Your task to perform on an android device: Open Android settings Image 0: 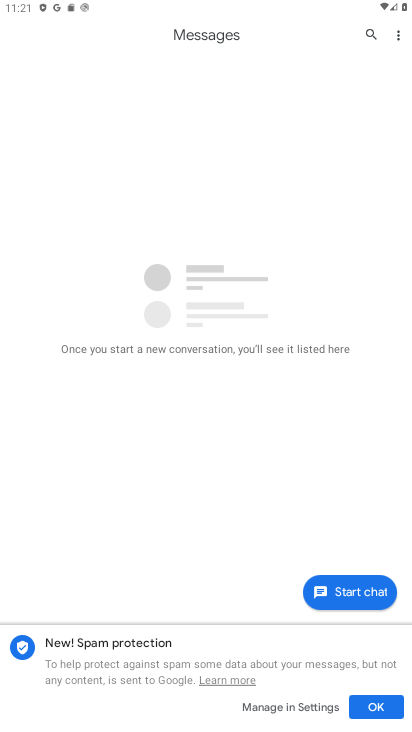
Step 0: press home button
Your task to perform on an android device: Open Android settings Image 1: 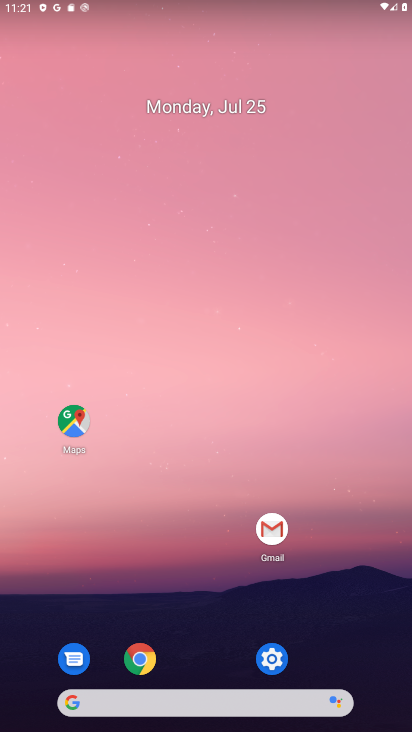
Step 1: click (291, 660)
Your task to perform on an android device: Open Android settings Image 2: 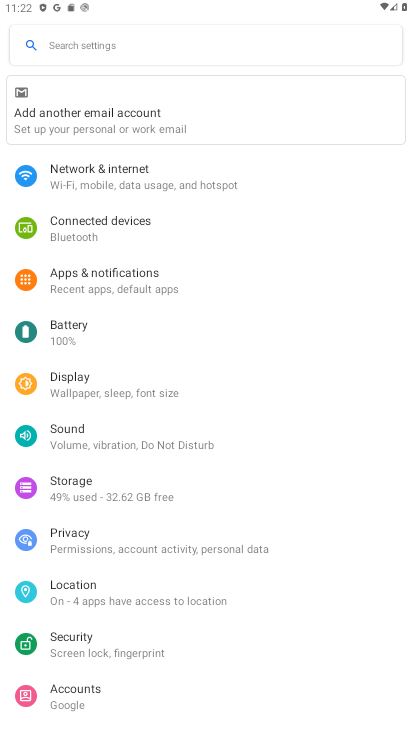
Step 2: click (118, 45)
Your task to perform on an android device: Open Android settings Image 3: 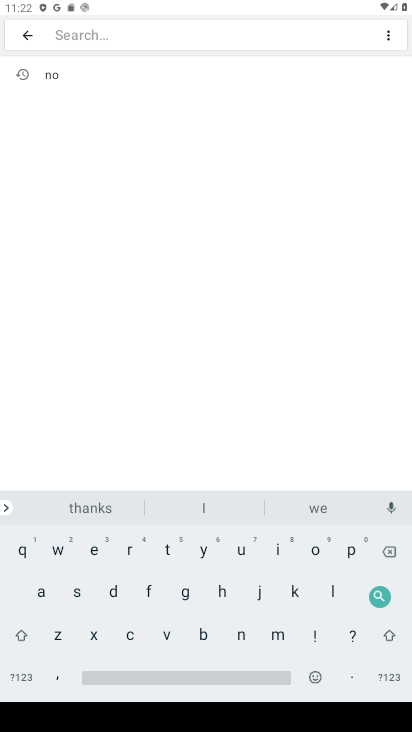
Step 3: click (35, 598)
Your task to perform on an android device: Open Android settings Image 4: 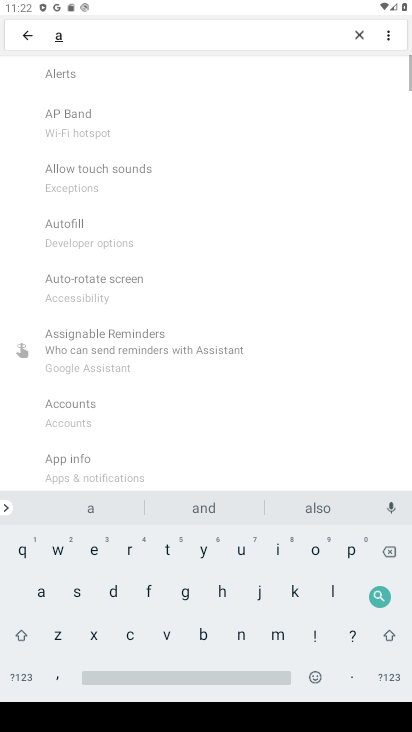
Step 4: click (238, 635)
Your task to perform on an android device: Open Android settings Image 5: 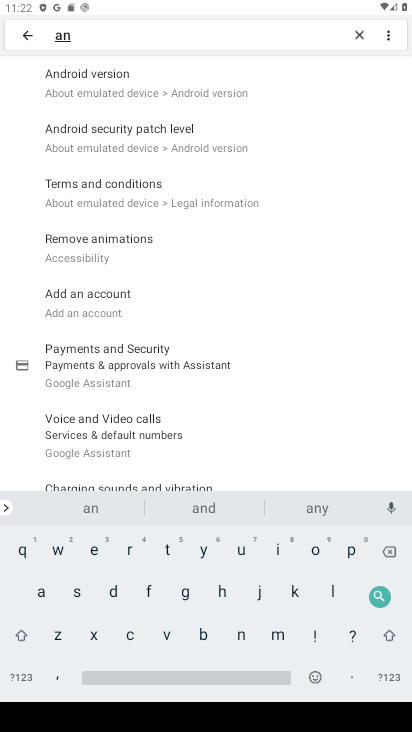
Step 5: click (79, 88)
Your task to perform on an android device: Open Android settings Image 6: 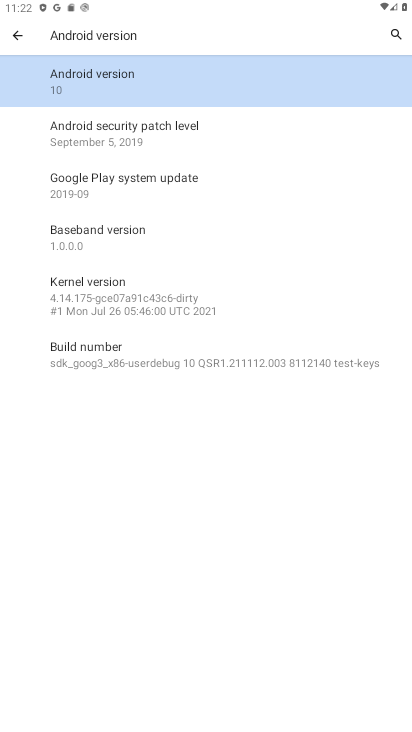
Step 6: click (130, 86)
Your task to perform on an android device: Open Android settings Image 7: 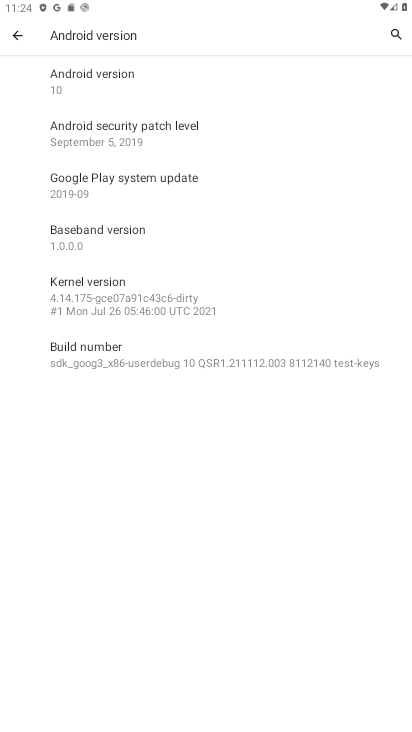
Step 7: task complete